Your task to perform on an android device: change notification settings in the gmail app Image 0: 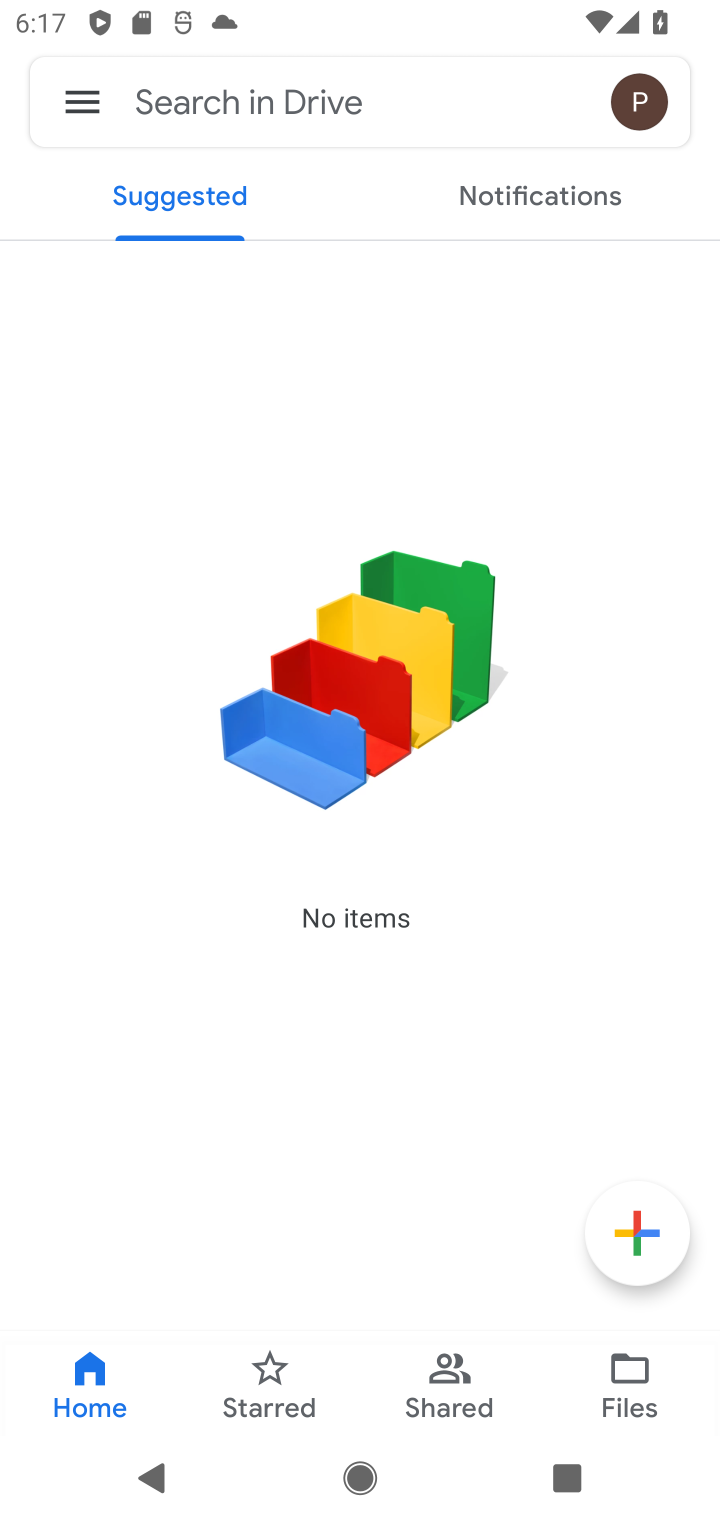
Step 0: press home button
Your task to perform on an android device: change notification settings in the gmail app Image 1: 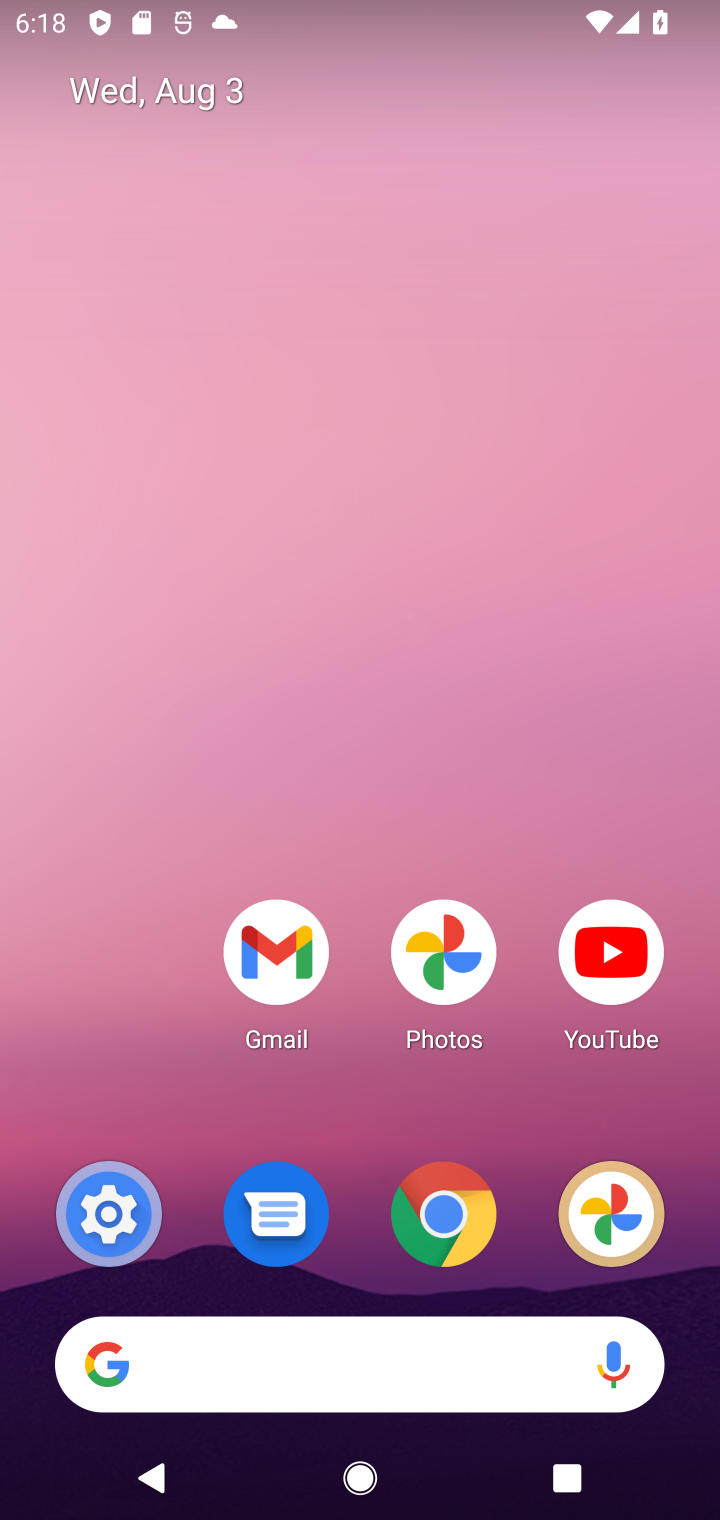
Step 1: drag from (84, 455) to (214, 487)
Your task to perform on an android device: change notification settings in the gmail app Image 2: 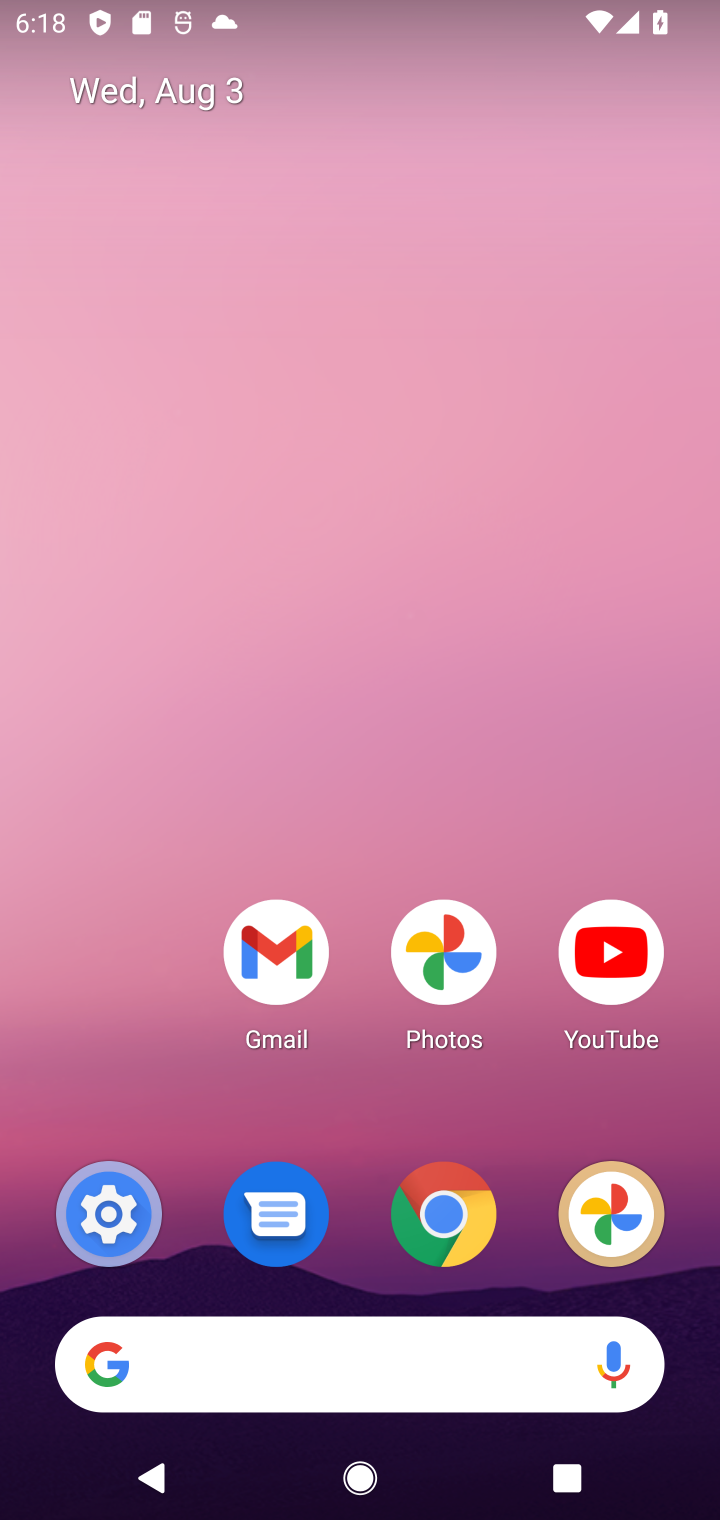
Step 2: drag from (159, 921) to (316, 0)
Your task to perform on an android device: change notification settings in the gmail app Image 3: 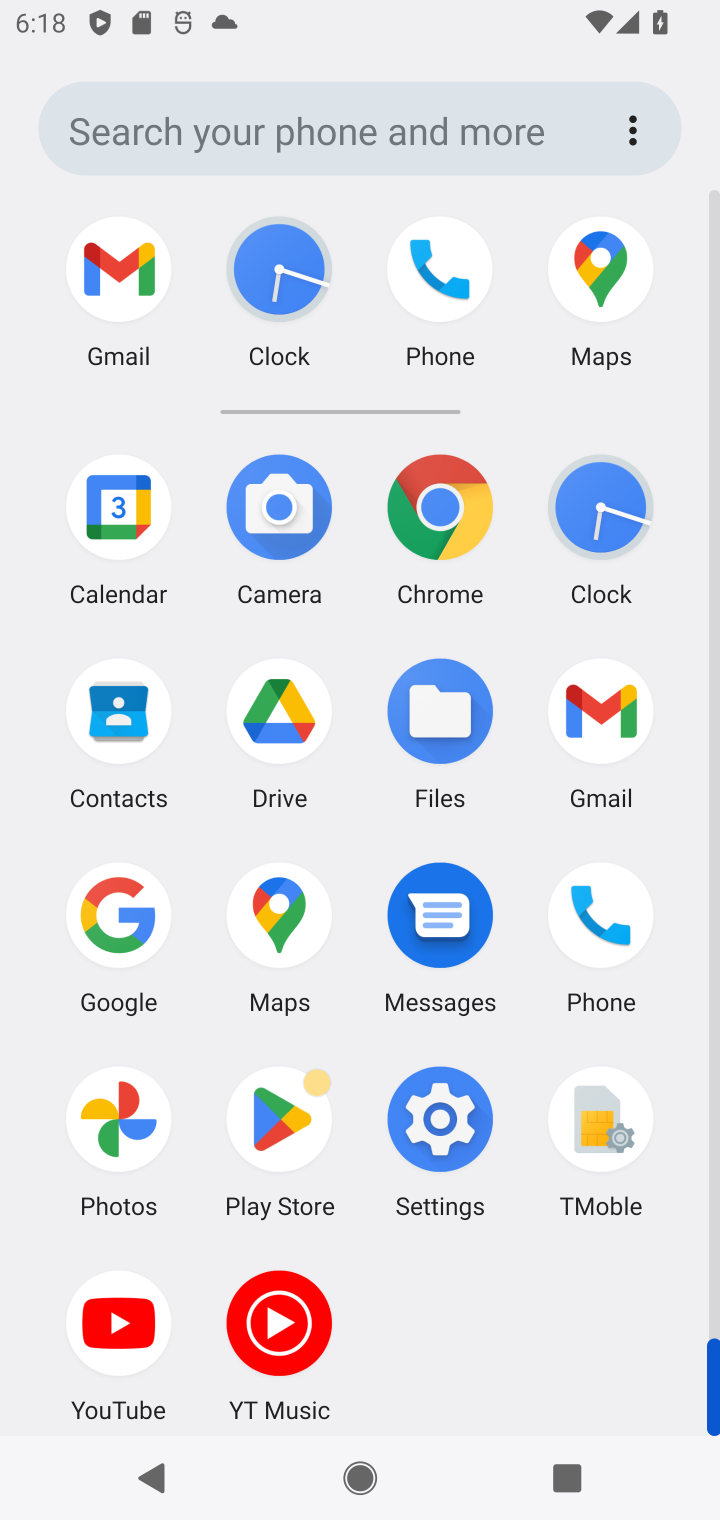
Step 3: click (108, 303)
Your task to perform on an android device: change notification settings in the gmail app Image 4: 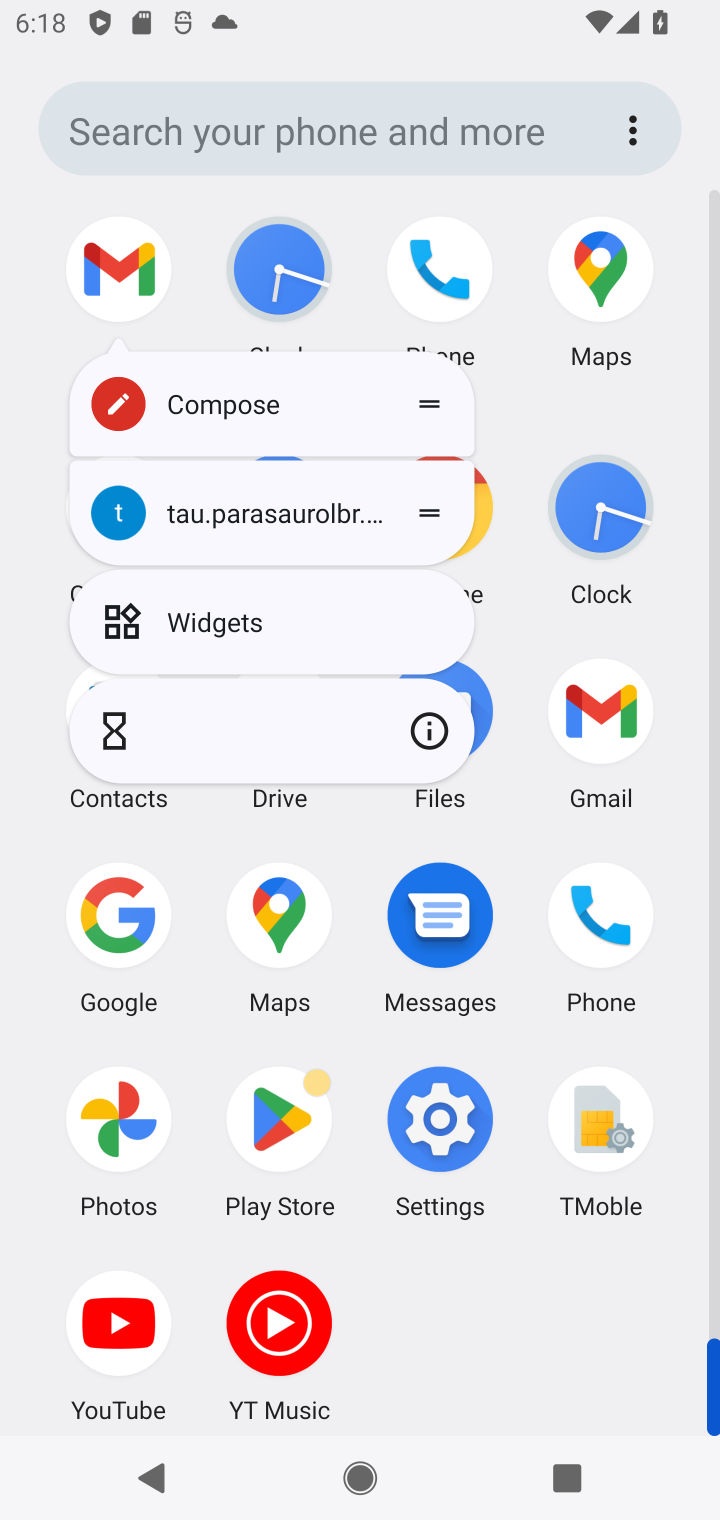
Step 4: click (88, 245)
Your task to perform on an android device: change notification settings in the gmail app Image 5: 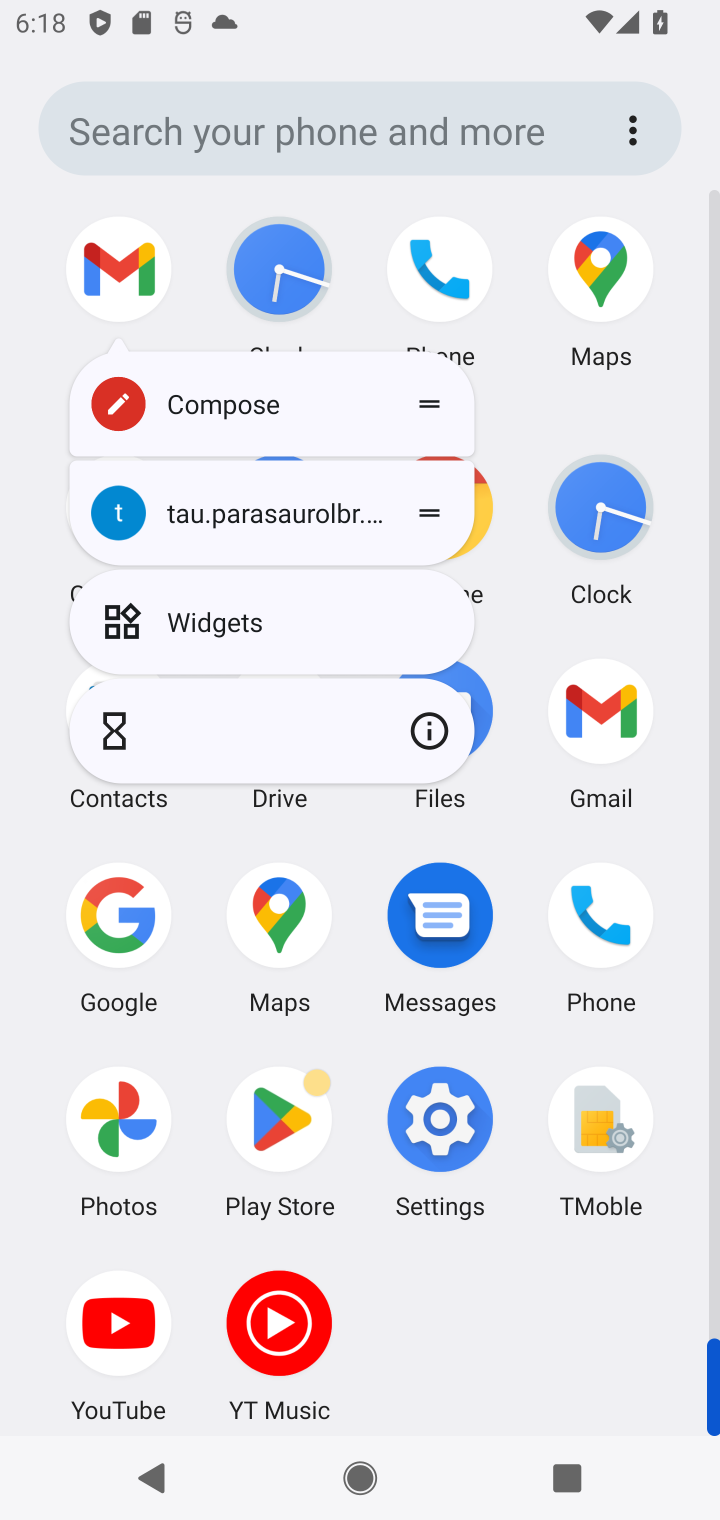
Step 5: click (110, 258)
Your task to perform on an android device: change notification settings in the gmail app Image 6: 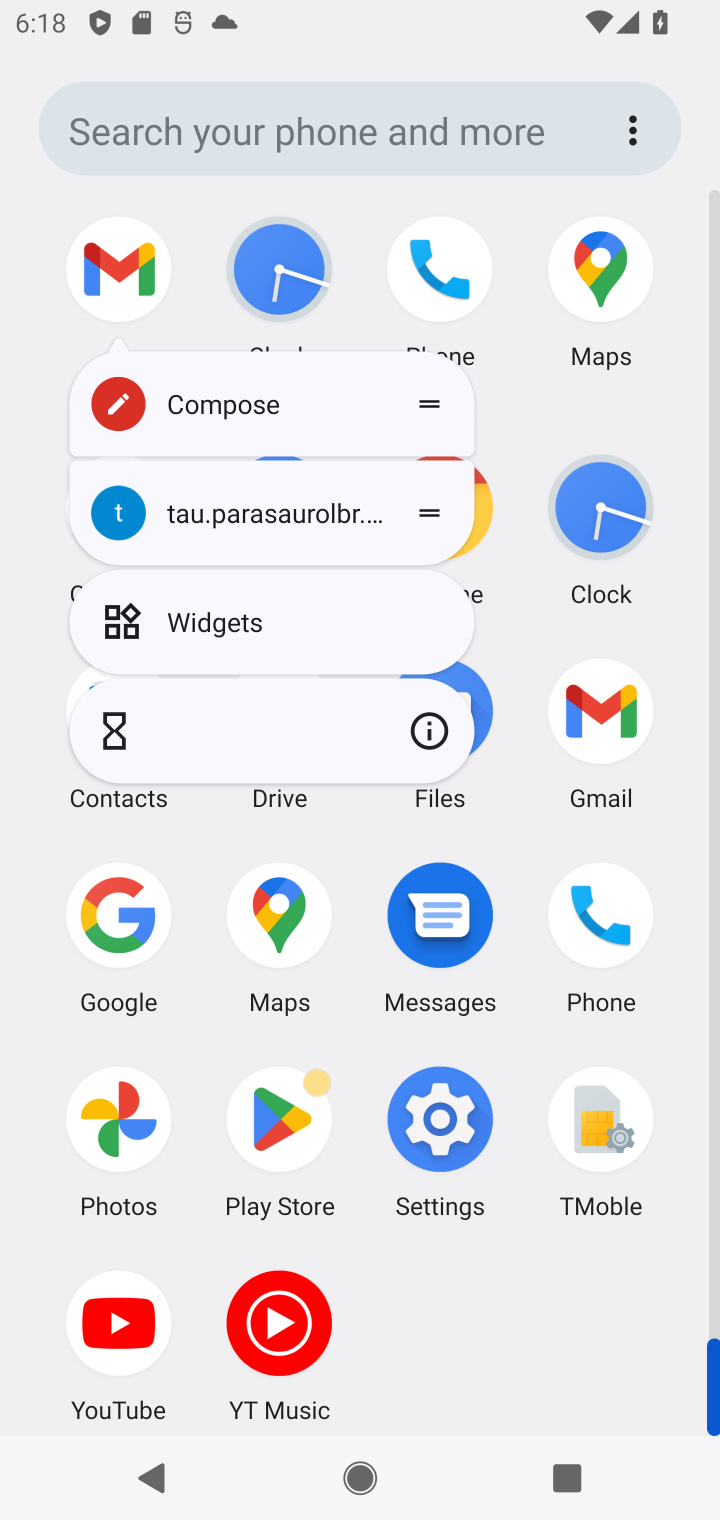
Step 6: click (105, 252)
Your task to perform on an android device: change notification settings in the gmail app Image 7: 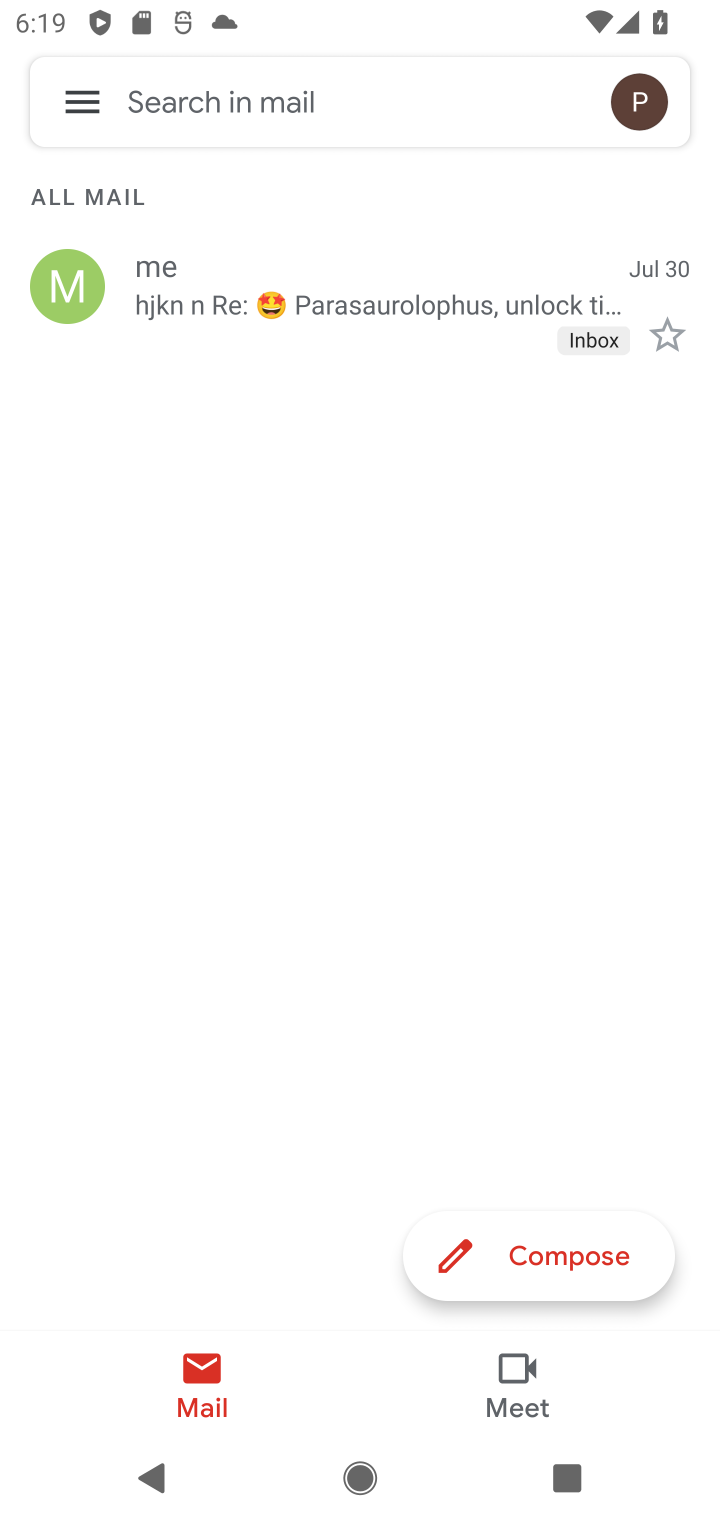
Step 7: click (96, 98)
Your task to perform on an android device: change notification settings in the gmail app Image 8: 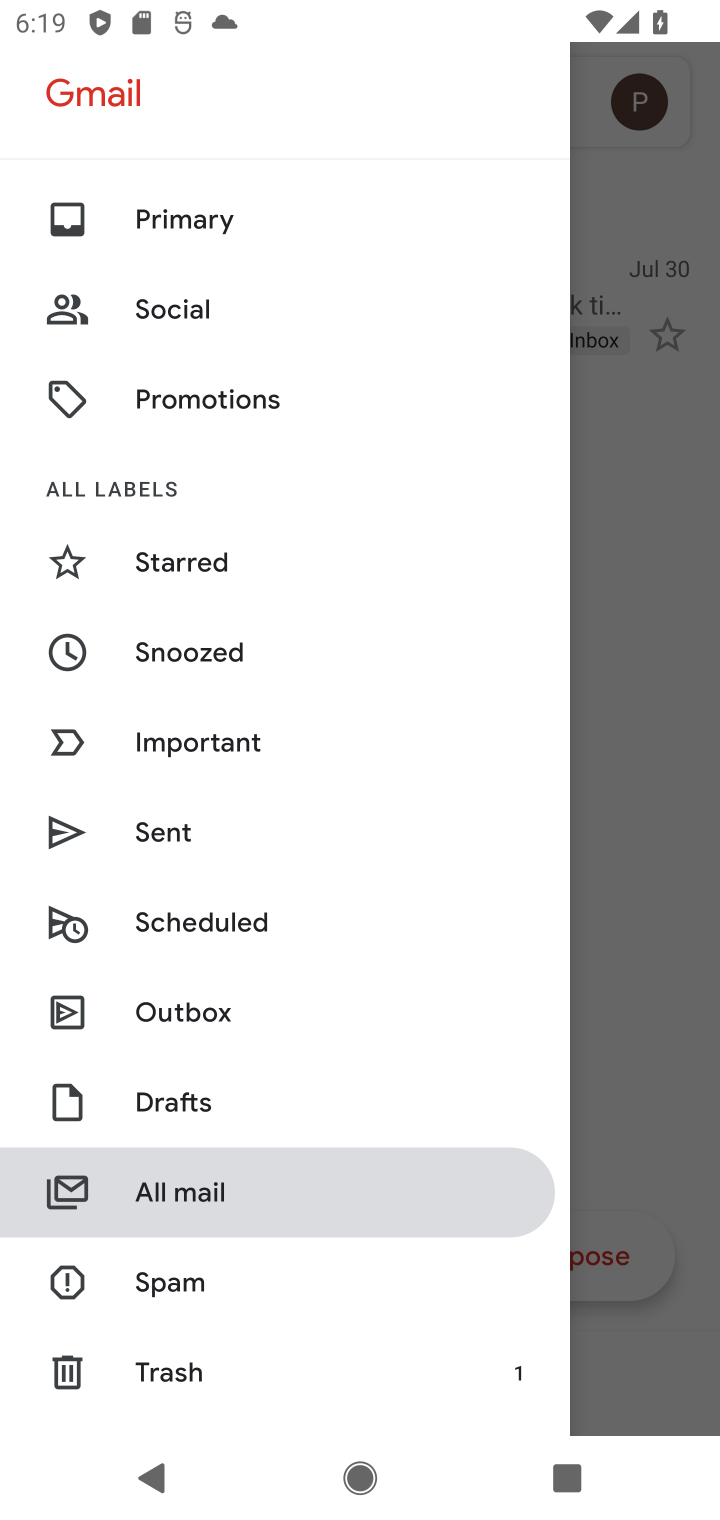
Step 8: drag from (261, 1231) to (205, 163)
Your task to perform on an android device: change notification settings in the gmail app Image 9: 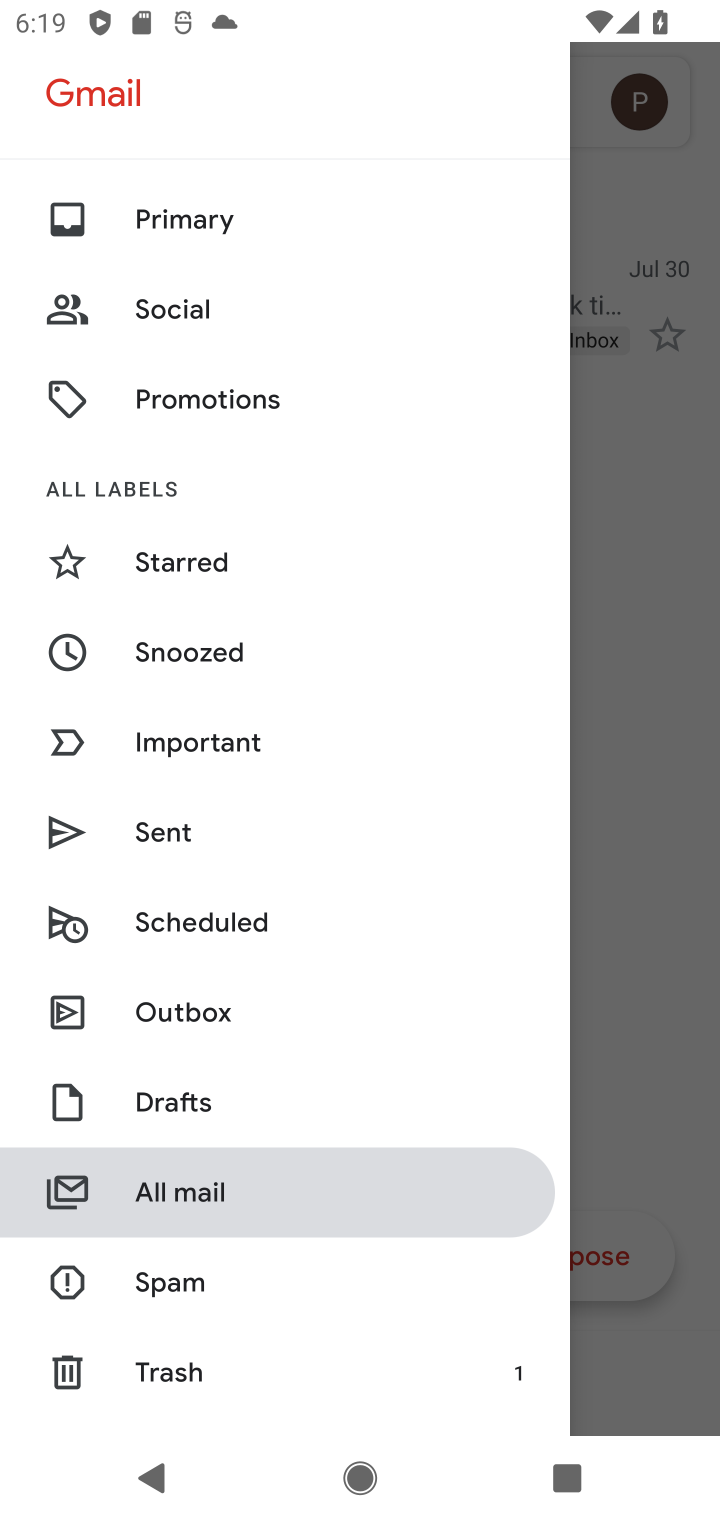
Step 9: drag from (218, 1397) to (206, 432)
Your task to perform on an android device: change notification settings in the gmail app Image 10: 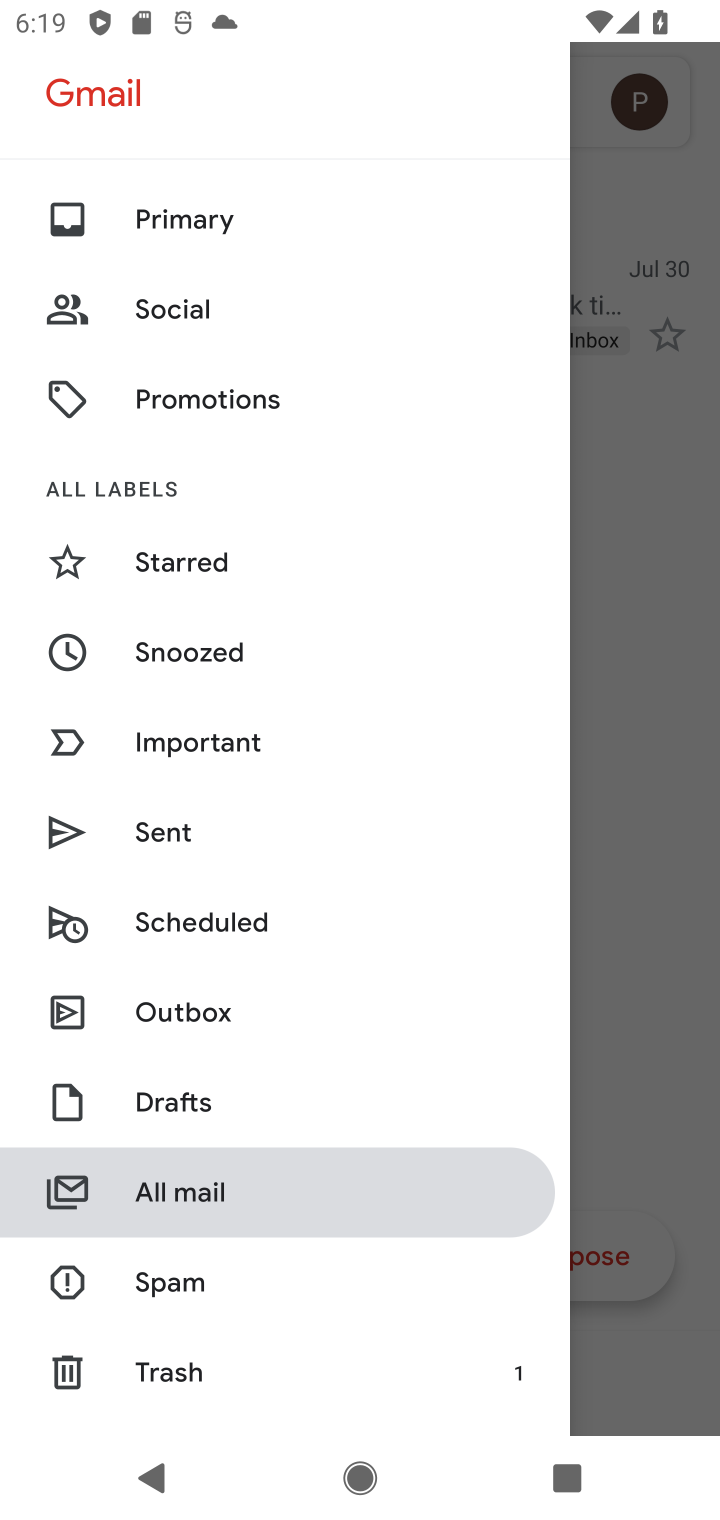
Step 10: drag from (242, 1316) to (333, 339)
Your task to perform on an android device: change notification settings in the gmail app Image 11: 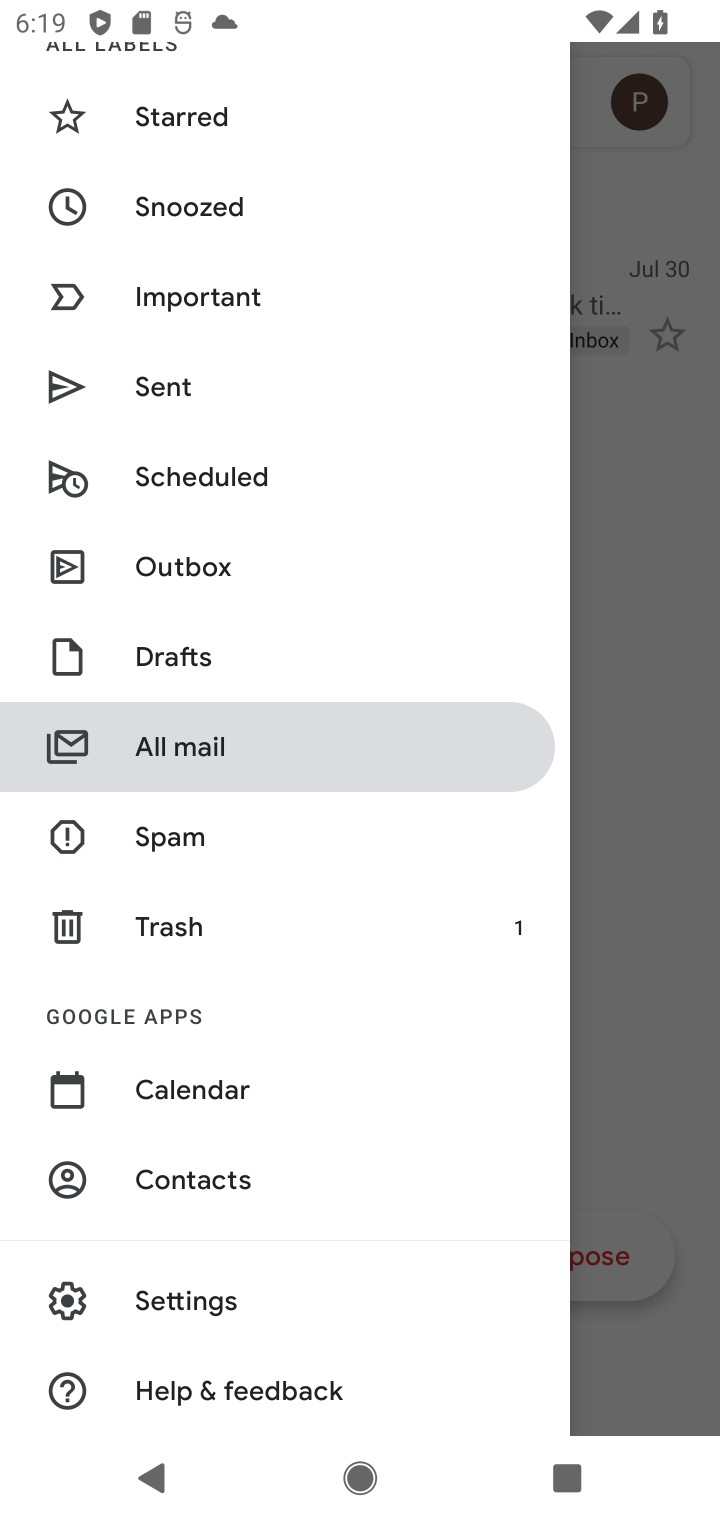
Step 11: click (206, 1301)
Your task to perform on an android device: change notification settings in the gmail app Image 12: 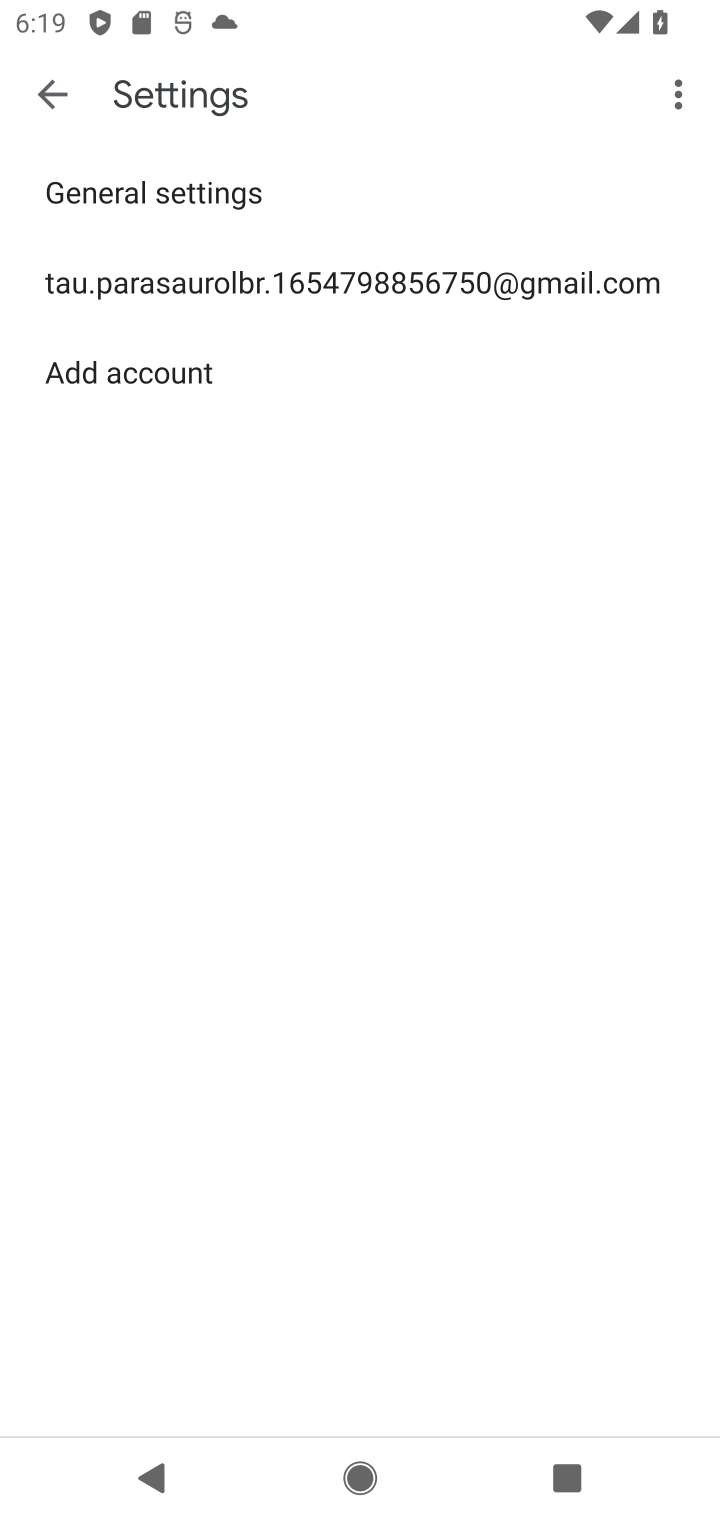
Step 12: click (85, 276)
Your task to perform on an android device: change notification settings in the gmail app Image 13: 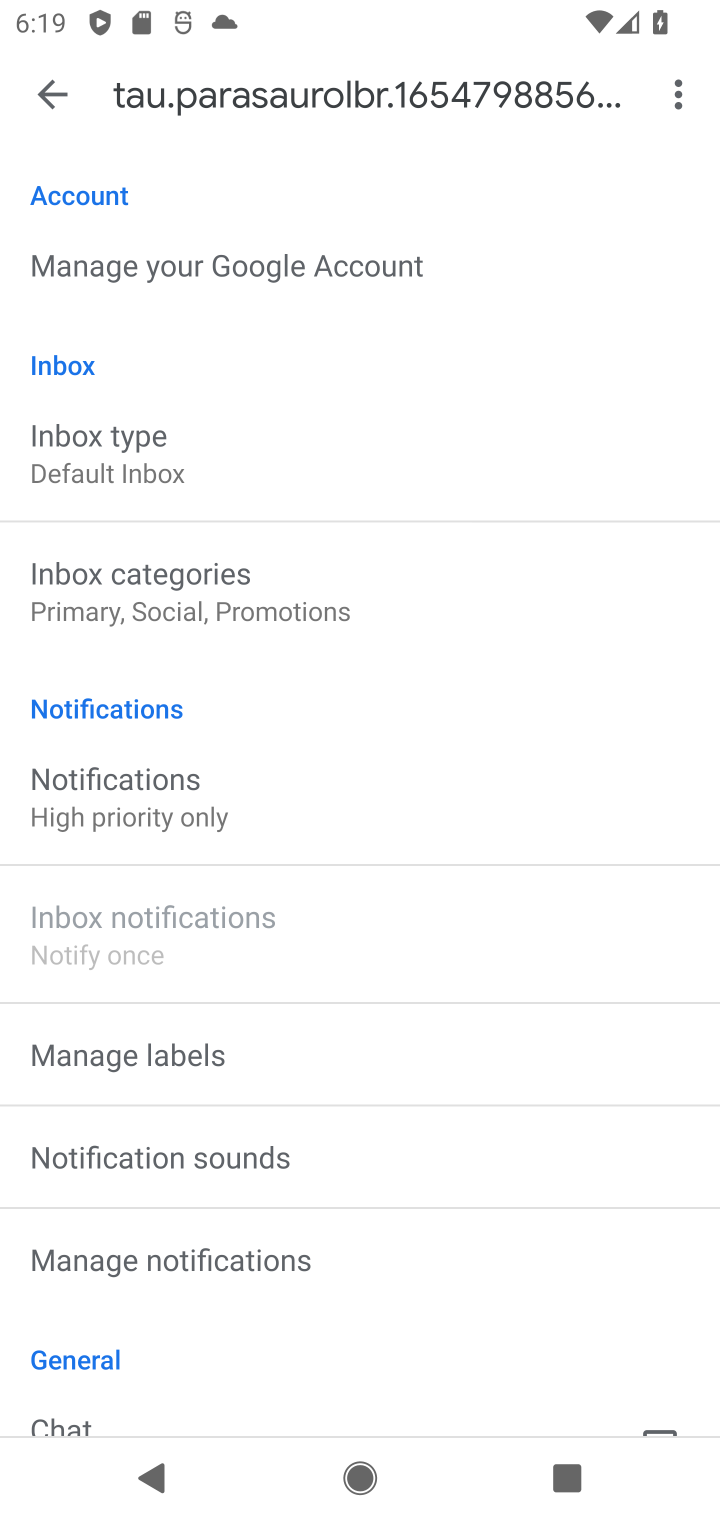
Step 13: click (92, 808)
Your task to perform on an android device: change notification settings in the gmail app Image 14: 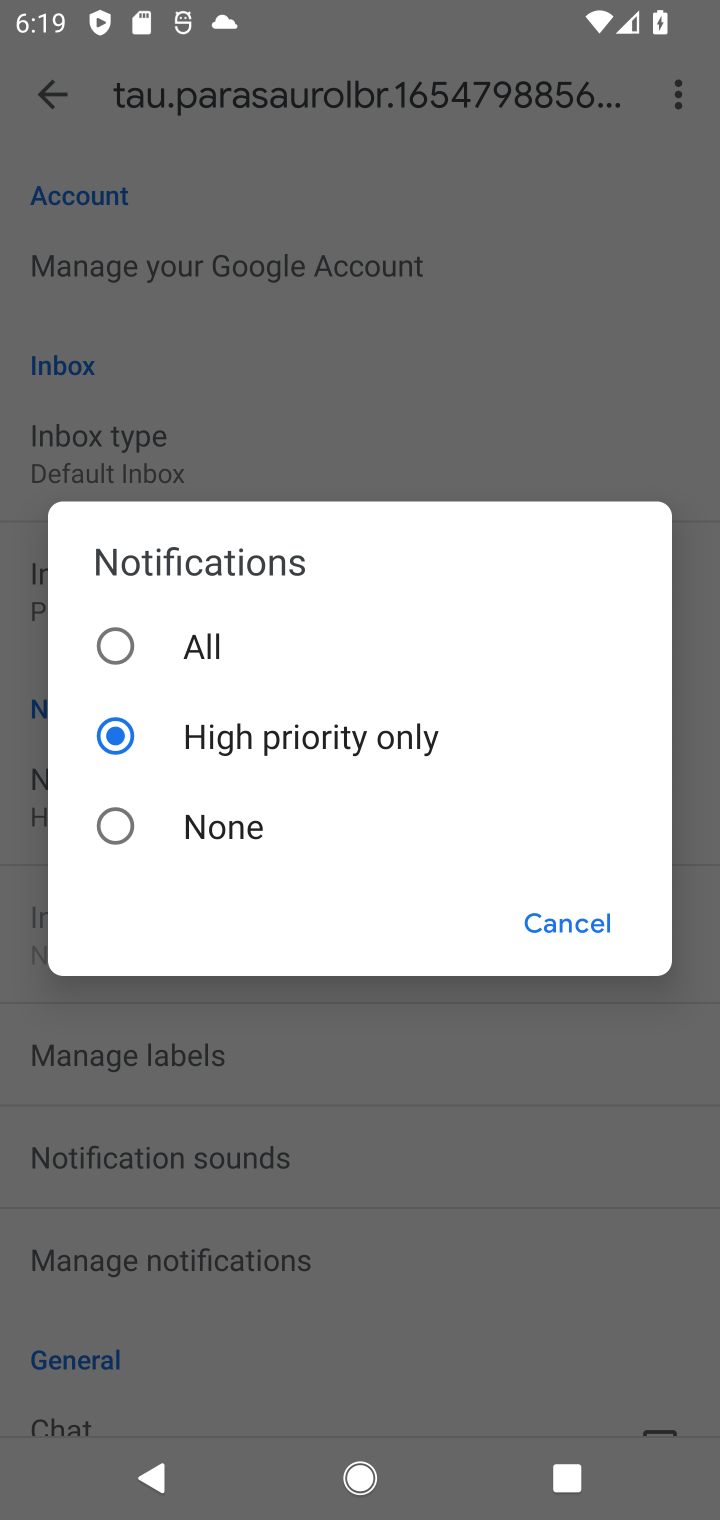
Step 14: click (166, 648)
Your task to perform on an android device: change notification settings in the gmail app Image 15: 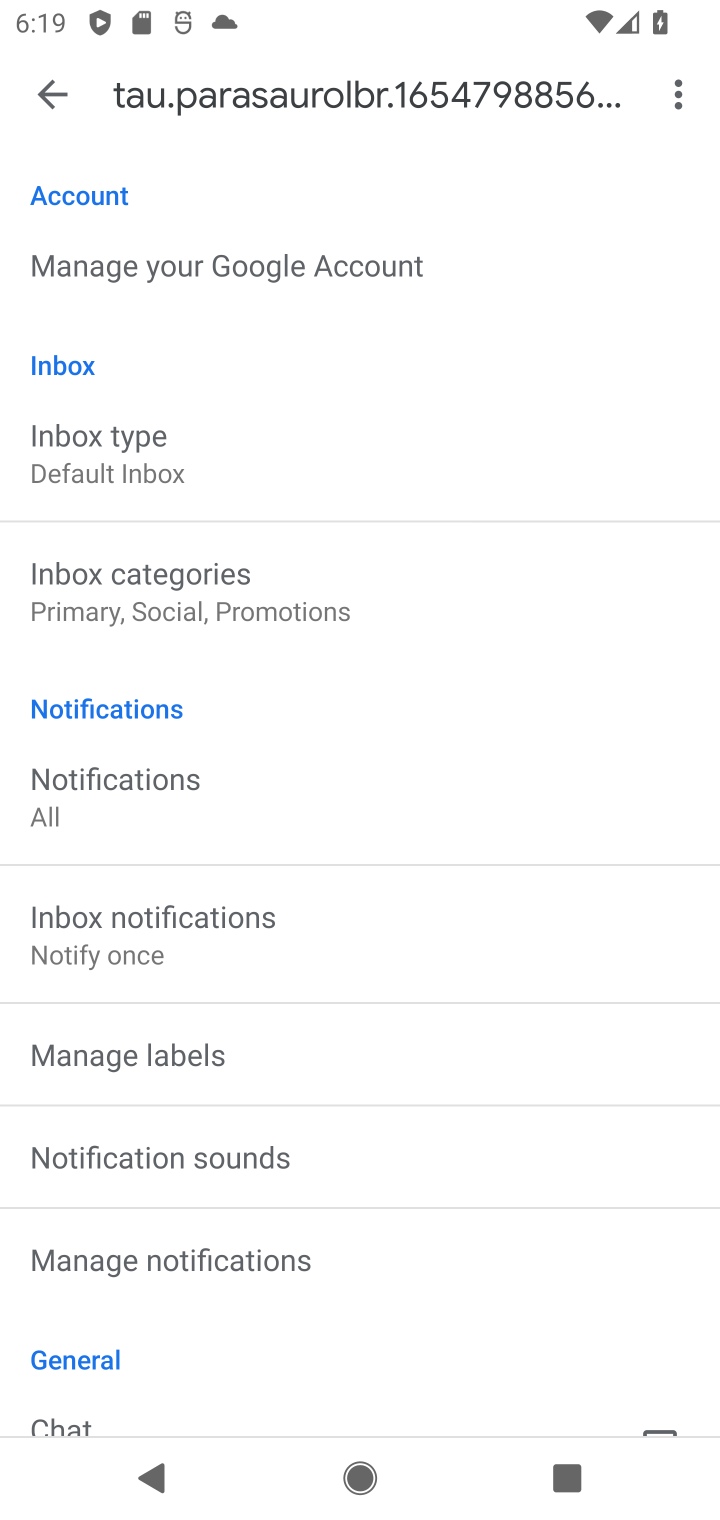
Step 15: task complete